Your task to perform on an android device: Show me recent news Image 0: 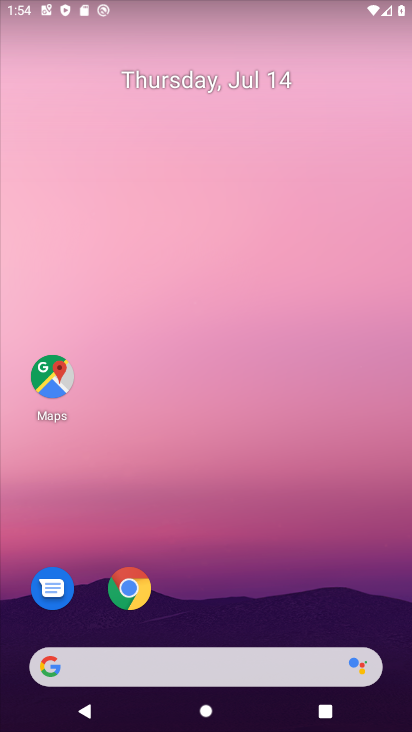
Step 0: click (171, 664)
Your task to perform on an android device: Show me recent news Image 1: 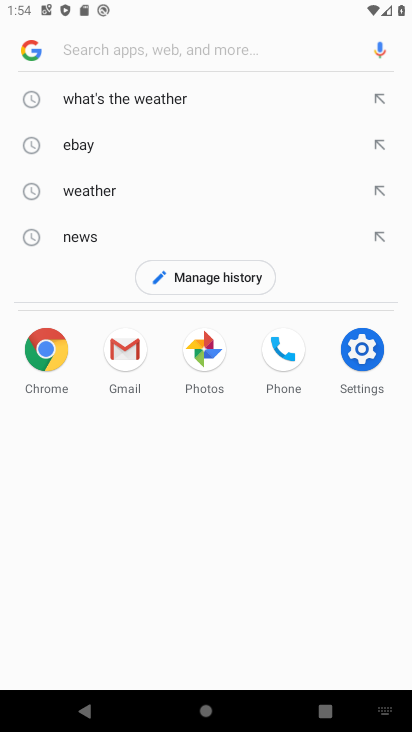
Step 1: type "recent news"
Your task to perform on an android device: Show me recent news Image 2: 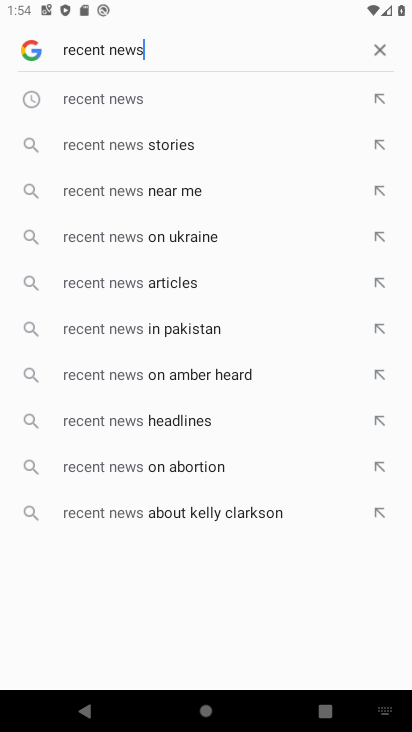
Step 2: click (239, 98)
Your task to perform on an android device: Show me recent news Image 3: 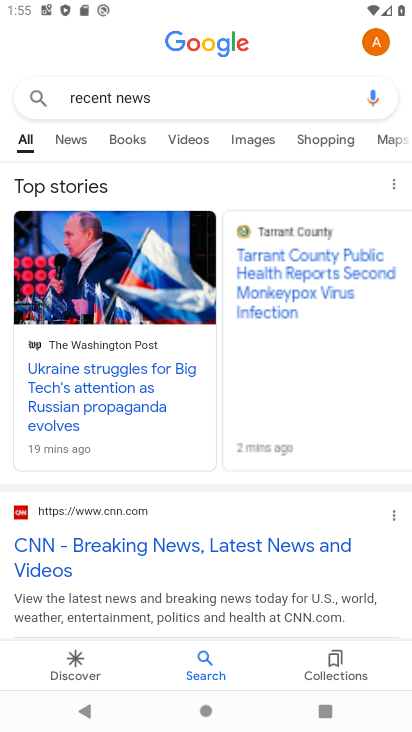
Step 3: task complete